Your task to perform on an android device: turn on bluetooth scan Image 0: 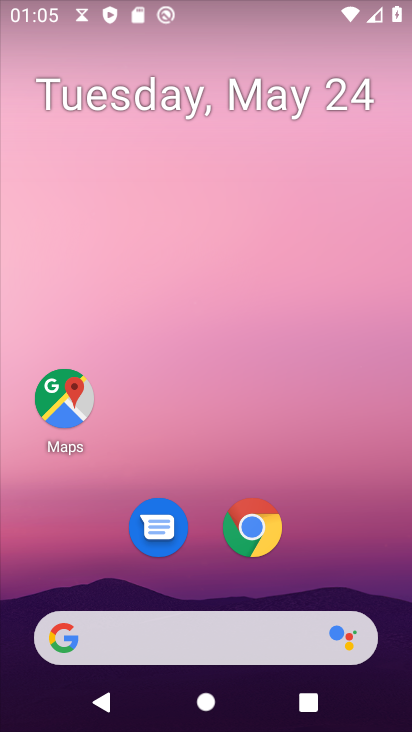
Step 0: press home button
Your task to perform on an android device: turn on bluetooth scan Image 1: 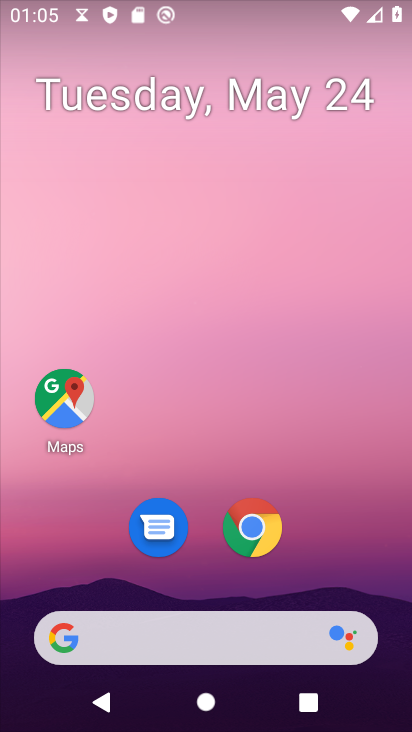
Step 1: drag from (185, 639) to (386, 326)
Your task to perform on an android device: turn on bluetooth scan Image 2: 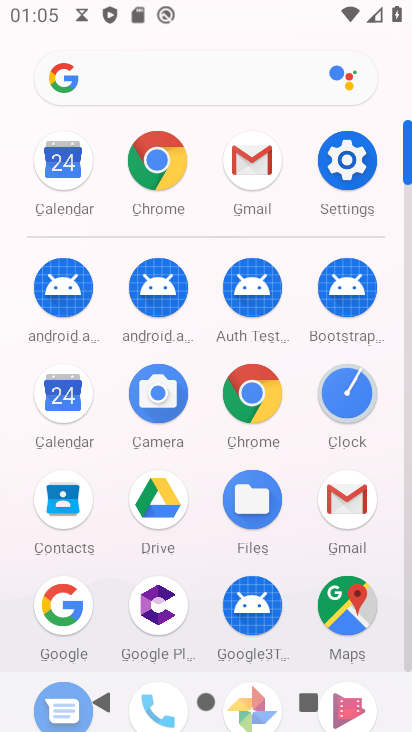
Step 2: click (359, 156)
Your task to perform on an android device: turn on bluetooth scan Image 3: 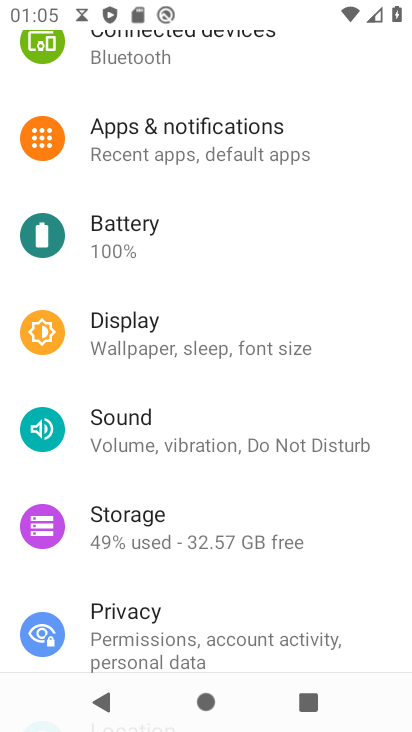
Step 3: drag from (236, 509) to (368, 167)
Your task to perform on an android device: turn on bluetooth scan Image 4: 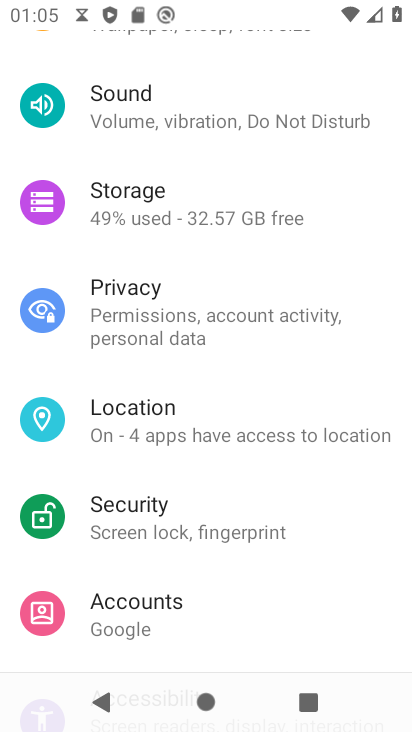
Step 4: click (138, 421)
Your task to perform on an android device: turn on bluetooth scan Image 5: 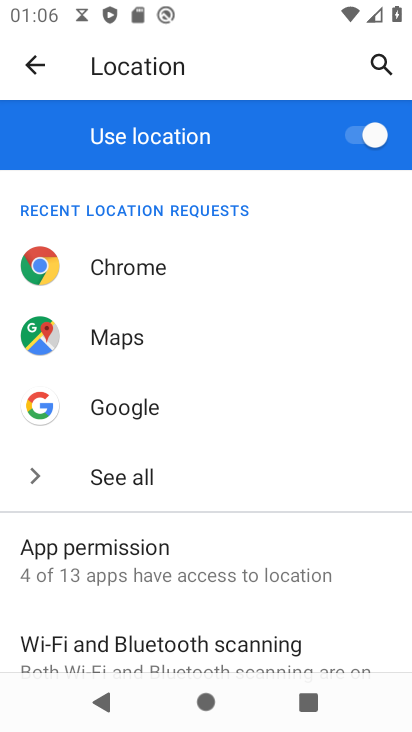
Step 5: drag from (220, 577) to (367, 209)
Your task to perform on an android device: turn on bluetooth scan Image 6: 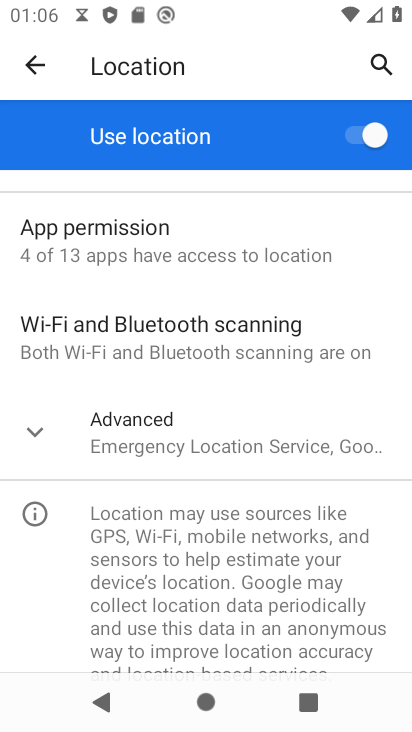
Step 6: click (220, 355)
Your task to perform on an android device: turn on bluetooth scan Image 7: 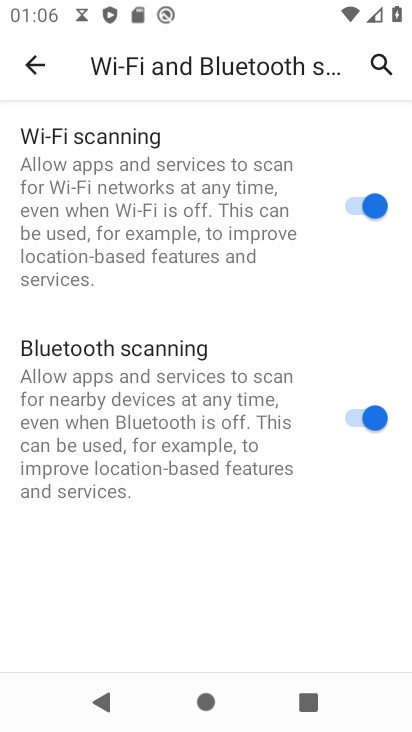
Step 7: task complete